Your task to perform on an android device: Open Maps and search for coffee Image 0: 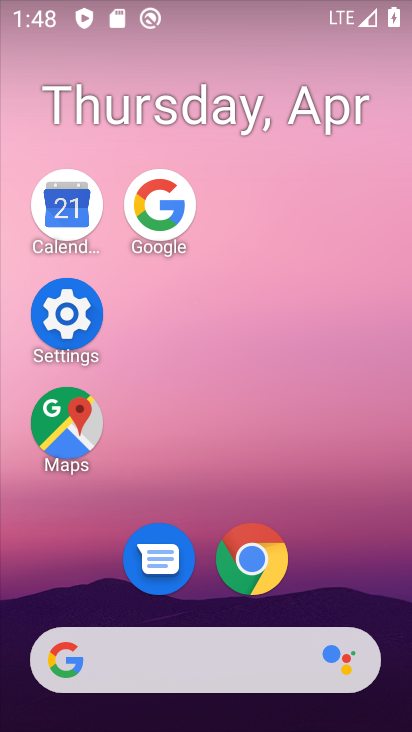
Step 0: click (64, 436)
Your task to perform on an android device: Open Maps and search for coffee Image 1: 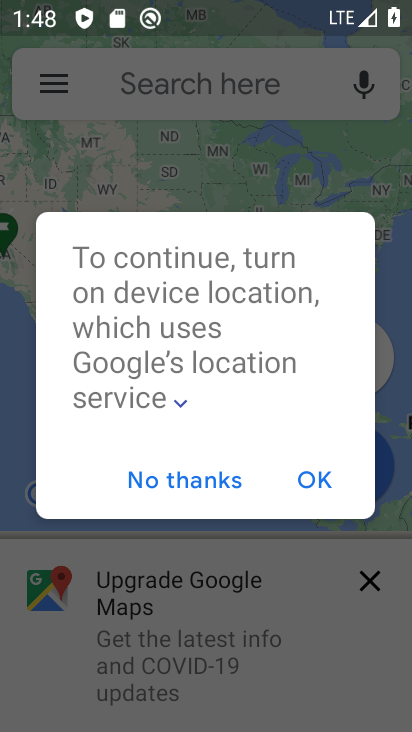
Step 1: click (191, 80)
Your task to perform on an android device: Open Maps and search for coffee Image 2: 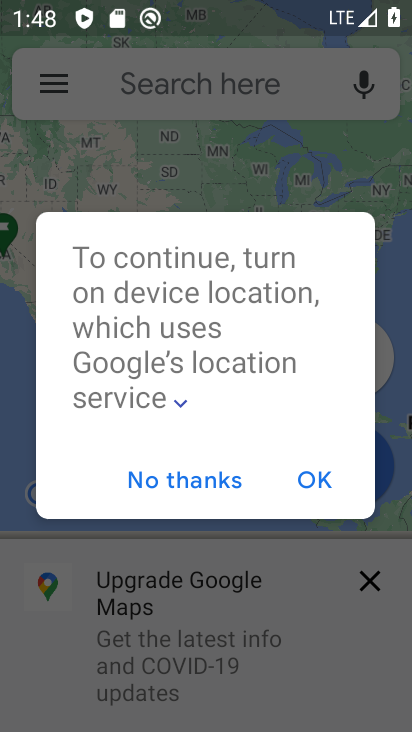
Step 2: click (318, 472)
Your task to perform on an android device: Open Maps and search for coffee Image 3: 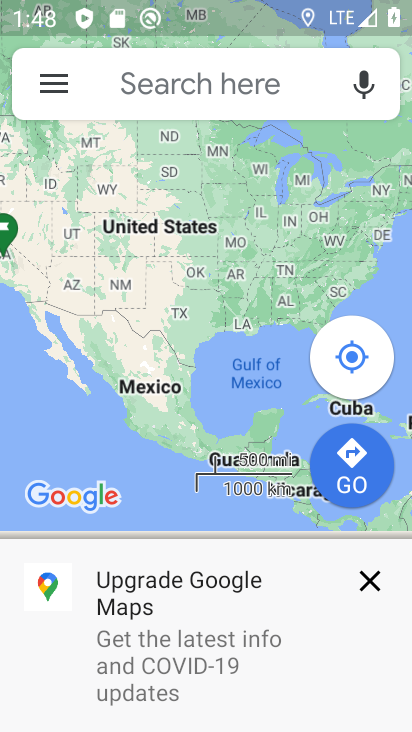
Step 3: click (240, 91)
Your task to perform on an android device: Open Maps and search for coffee Image 4: 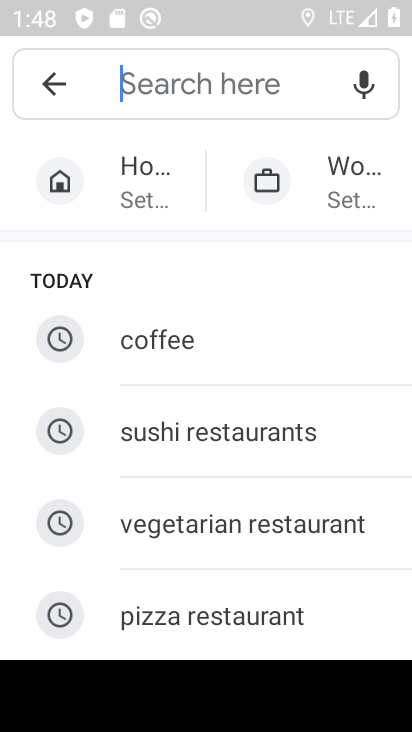
Step 4: type "coffee"
Your task to perform on an android device: Open Maps and search for coffee Image 5: 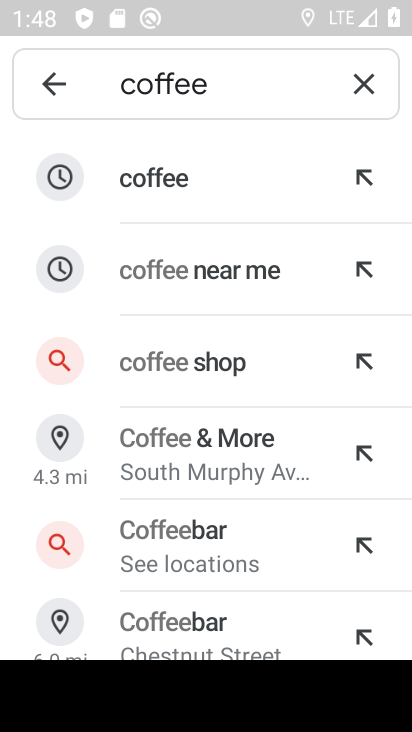
Step 5: task complete